Your task to perform on an android device: toggle priority inbox in the gmail app Image 0: 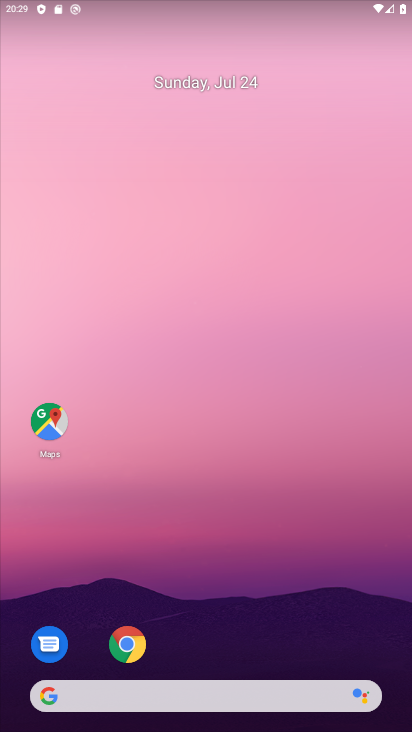
Step 0: drag from (355, 645) to (334, 201)
Your task to perform on an android device: toggle priority inbox in the gmail app Image 1: 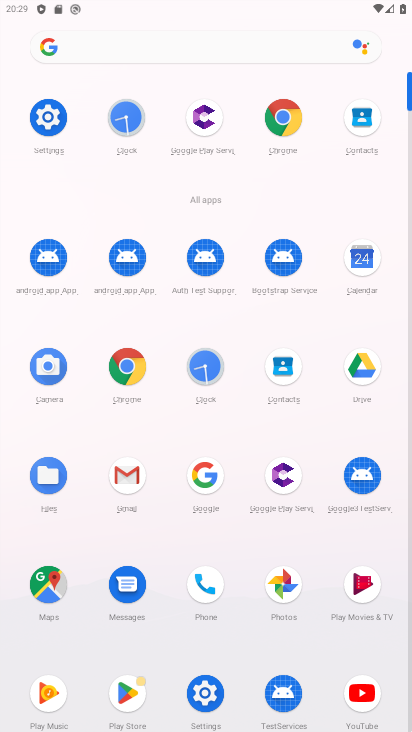
Step 1: click (126, 476)
Your task to perform on an android device: toggle priority inbox in the gmail app Image 2: 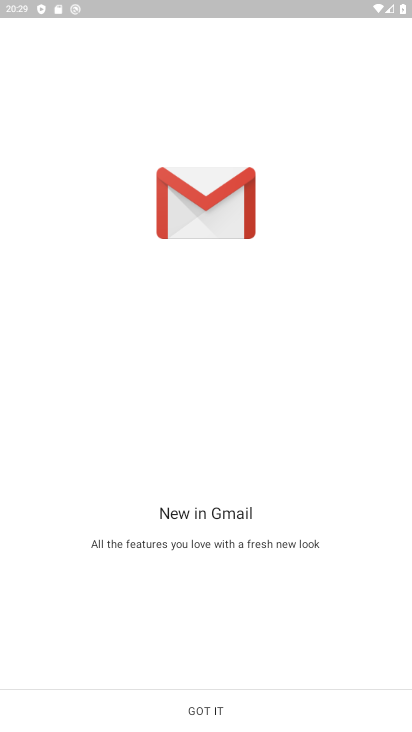
Step 2: click (193, 704)
Your task to perform on an android device: toggle priority inbox in the gmail app Image 3: 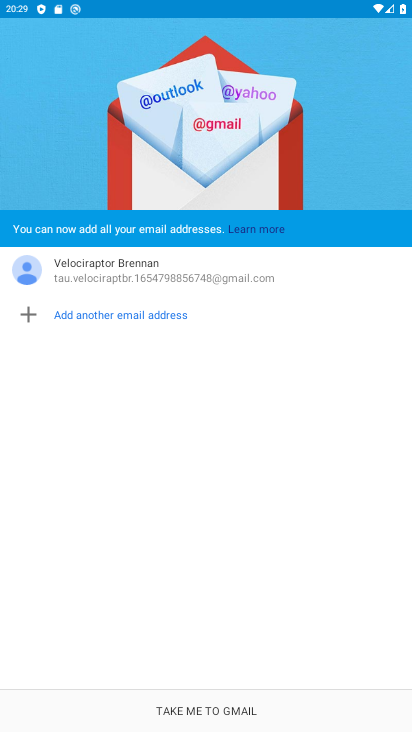
Step 3: click (196, 708)
Your task to perform on an android device: toggle priority inbox in the gmail app Image 4: 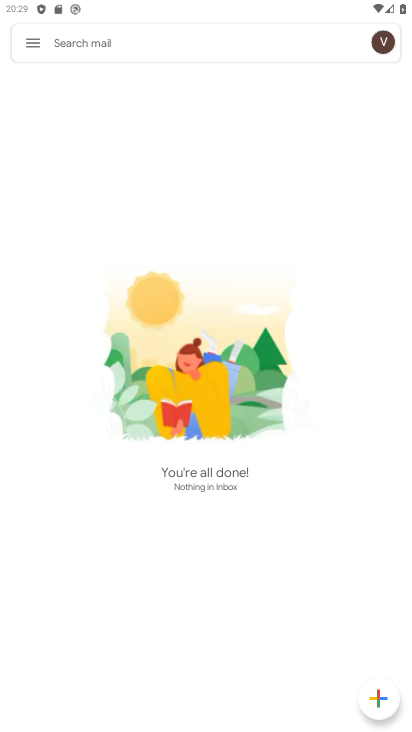
Step 4: click (31, 44)
Your task to perform on an android device: toggle priority inbox in the gmail app Image 5: 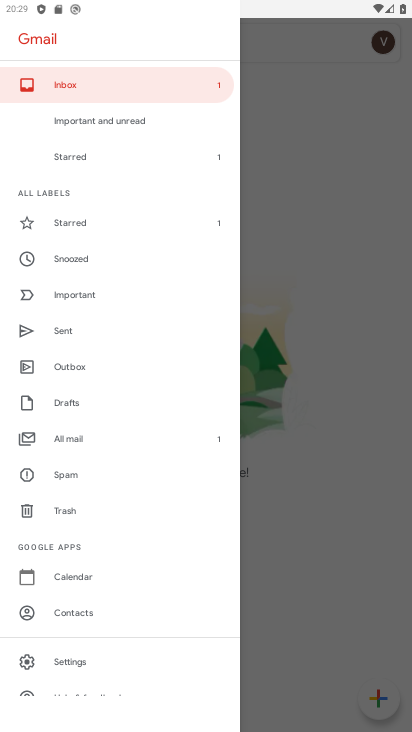
Step 5: click (61, 664)
Your task to perform on an android device: toggle priority inbox in the gmail app Image 6: 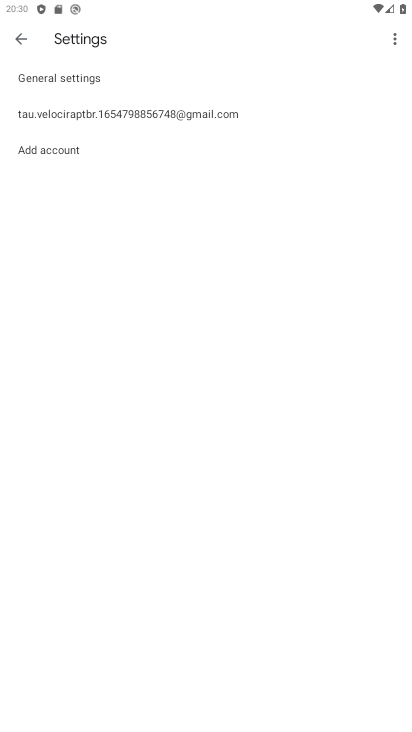
Step 6: click (116, 119)
Your task to perform on an android device: toggle priority inbox in the gmail app Image 7: 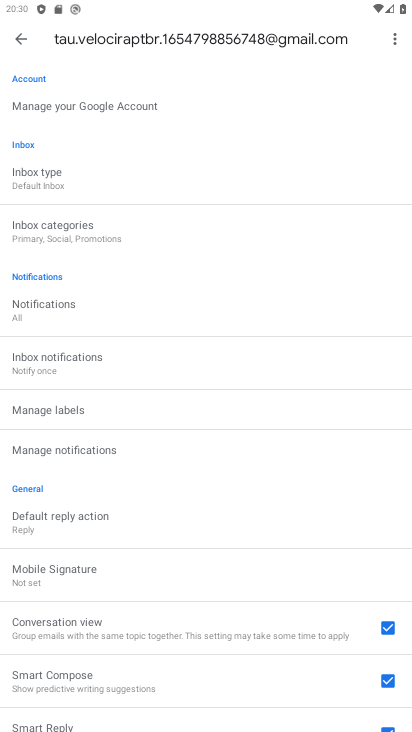
Step 7: click (47, 189)
Your task to perform on an android device: toggle priority inbox in the gmail app Image 8: 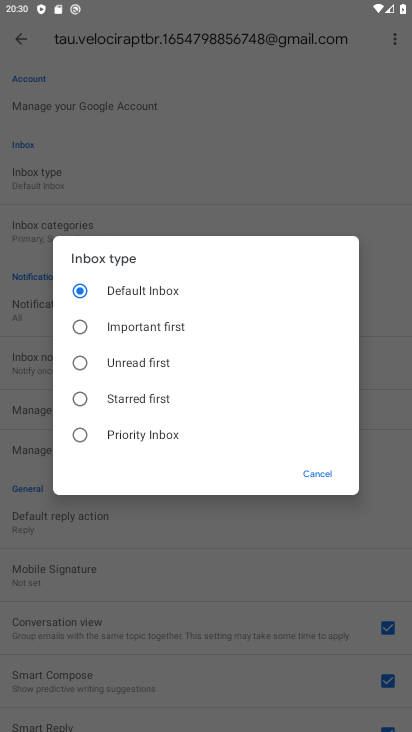
Step 8: click (81, 434)
Your task to perform on an android device: toggle priority inbox in the gmail app Image 9: 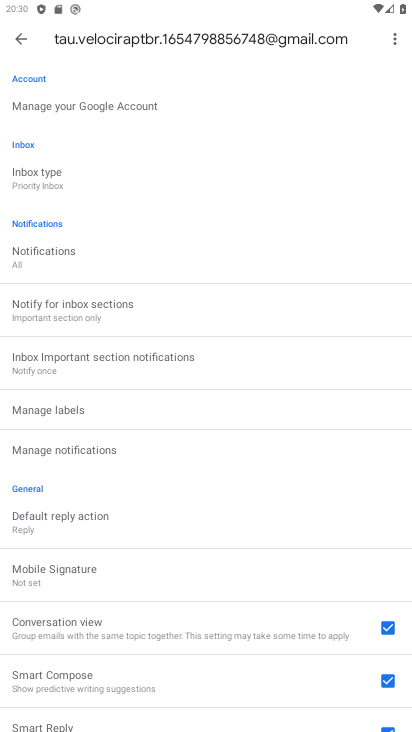
Step 9: task complete